Your task to perform on an android device: turn off translation in the chrome app Image 0: 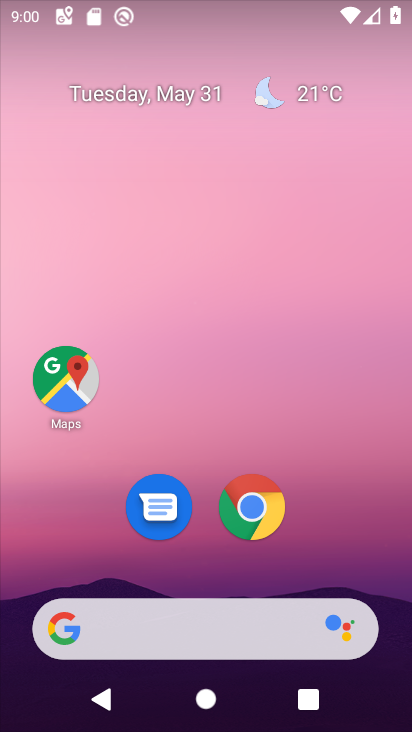
Step 0: drag from (359, 629) to (294, 108)
Your task to perform on an android device: turn off translation in the chrome app Image 1: 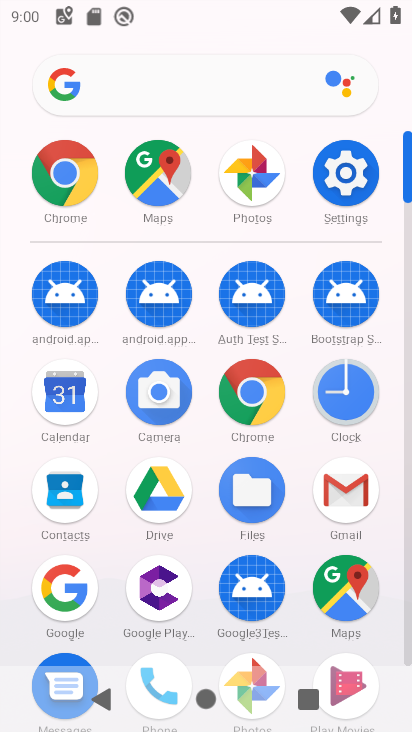
Step 1: click (258, 394)
Your task to perform on an android device: turn off translation in the chrome app Image 2: 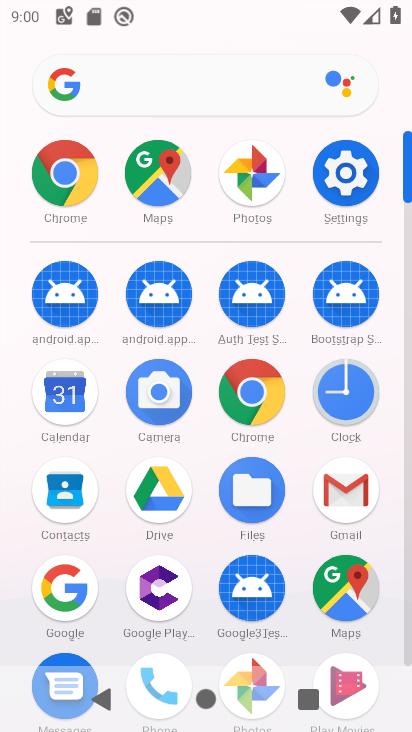
Step 2: click (258, 394)
Your task to perform on an android device: turn off translation in the chrome app Image 3: 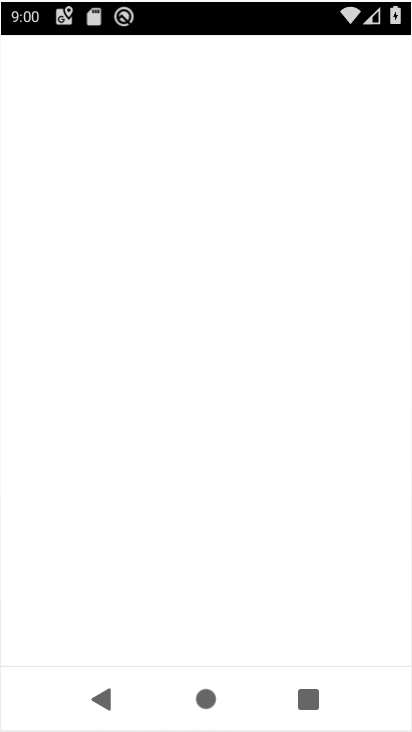
Step 3: click (254, 397)
Your task to perform on an android device: turn off translation in the chrome app Image 4: 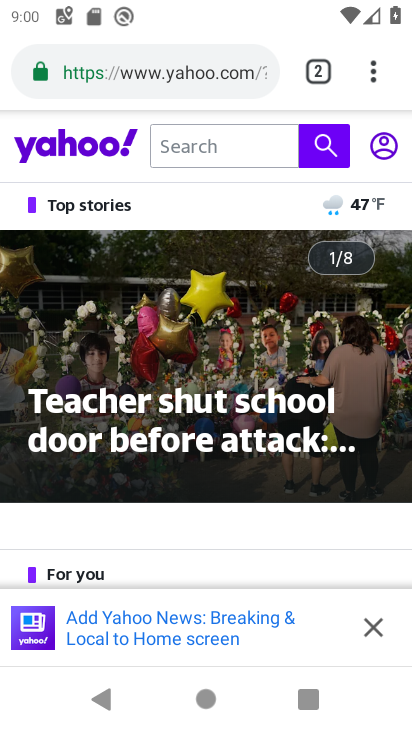
Step 4: drag from (372, 73) to (113, 536)
Your task to perform on an android device: turn off translation in the chrome app Image 5: 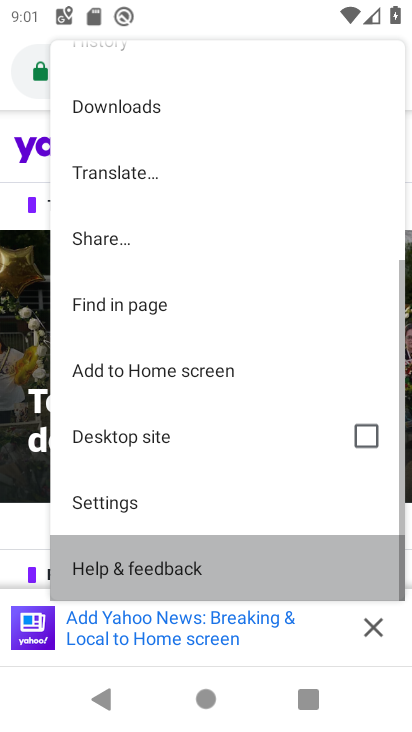
Step 5: click (112, 537)
Your task to perform on an android device: turn off translation in the chrome app Image 6: 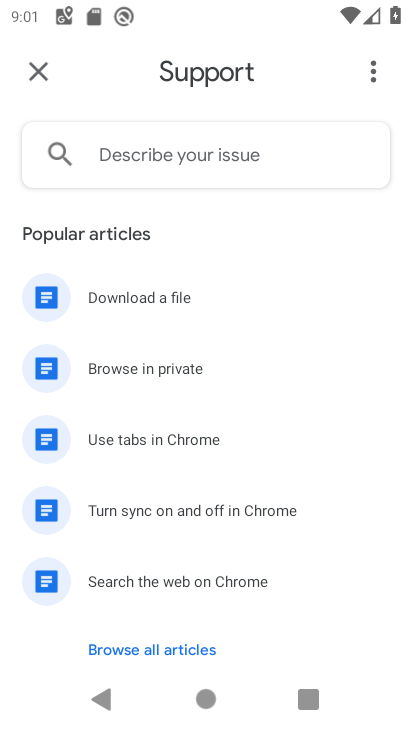
Step 6: click (44, 73)
Your task to perform on an android device: turn off translation in the chrome app Image 7: 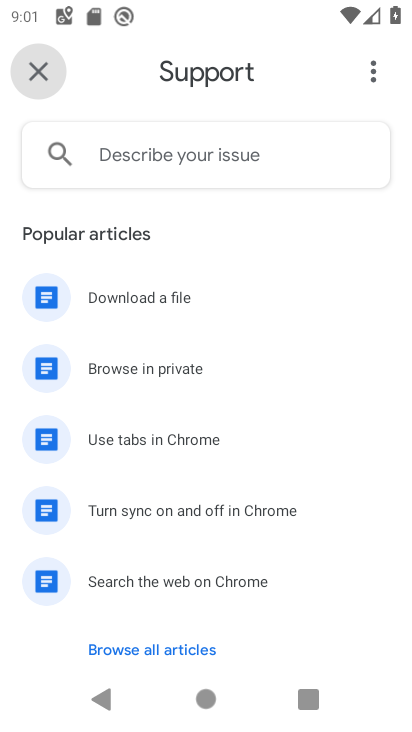
Step 7: click (52, 77)
Your task to perform on an android device: turn off translation in the chrome app Image 8: 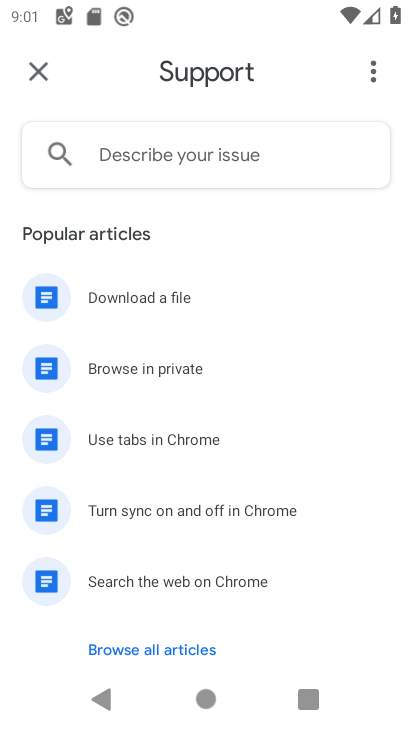
Step 8: click (45, 75)
Your task to perform on an android device: turn off translation in the chrome app Image 9: 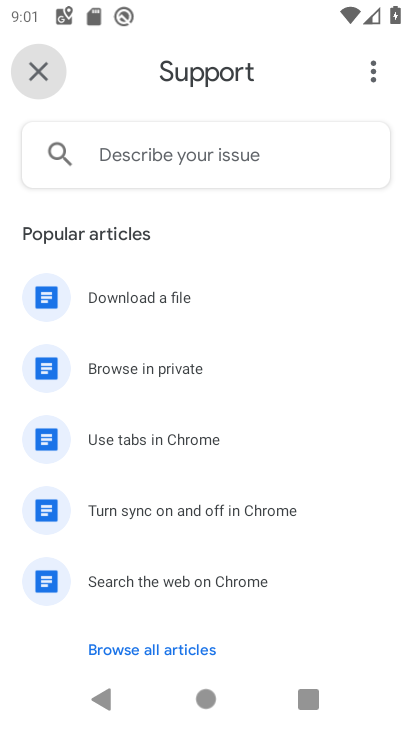
Step 9: click (45, 75)
Your task to perform on an android device: turn off translation in the chrome app Image 10: 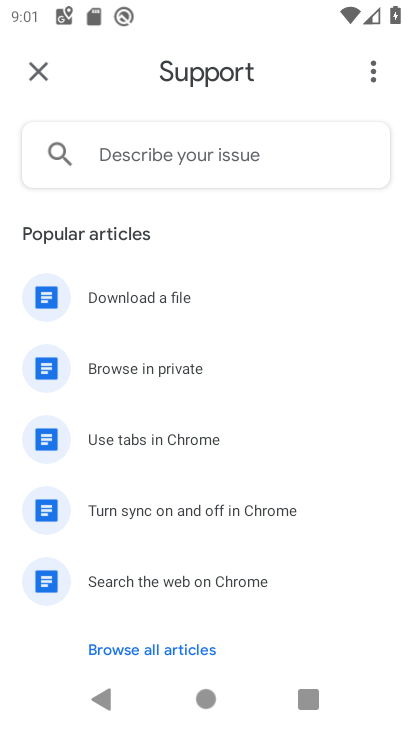
Step 10: click (45, 75)
Your task to perform on an android device: turn off translation in the chrome app Image 11: 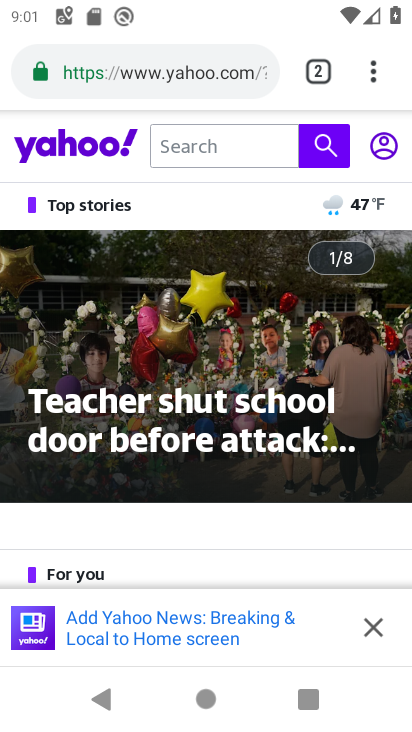
Step 11: drag from (375, 76) to (112, 498)
Your task to perform on an android device: turn off translation in the chrome app Image 12: 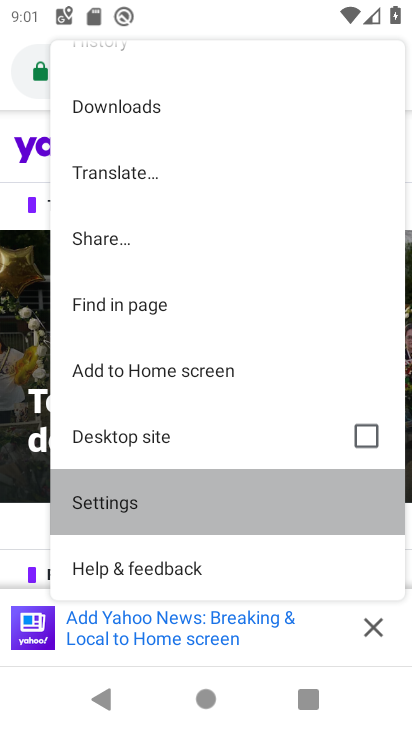
Step 12: click (115, 499)
Your task to perform on an android device: turn off translation in the chrome app Image 13: 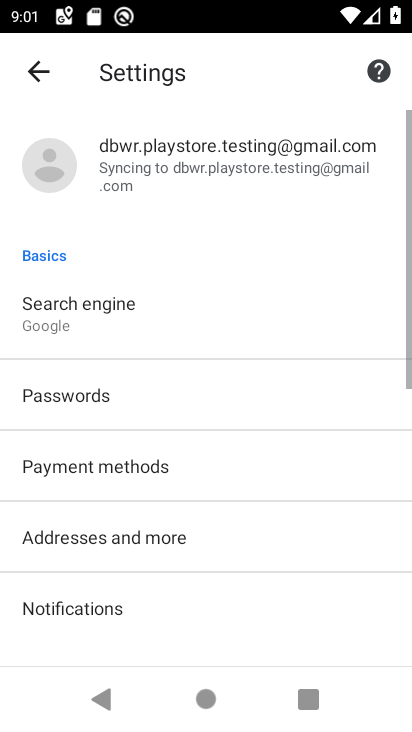
Step 13: drag from (136, 530) to (77, 70)
Your task to perform on an android device: turn off translation in the chrome app Image 14: 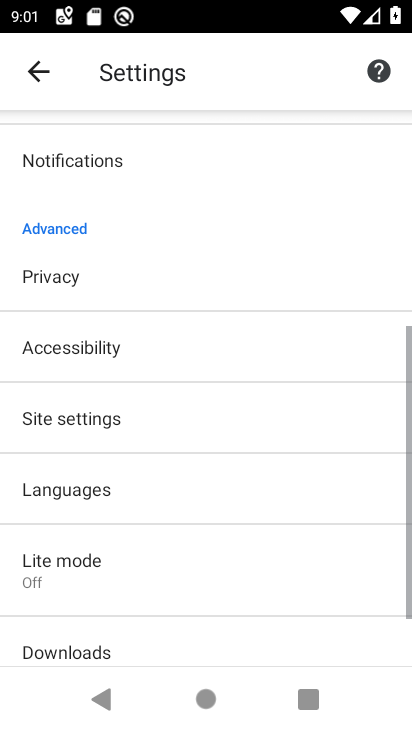
Step 14: drag from (179, 417) to (181, 31)
Your task to perform on an android device: turn off translation in the chrome app Image 15: 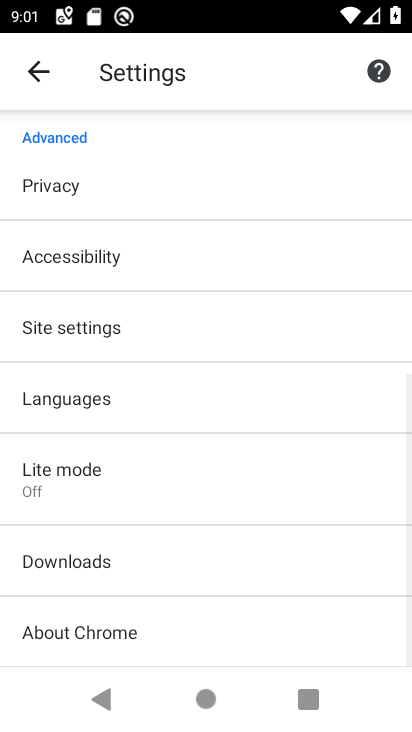
Step 15: click (87, 385)
Your task to perform on an android device: turn off translation in the chrome app Image 16: 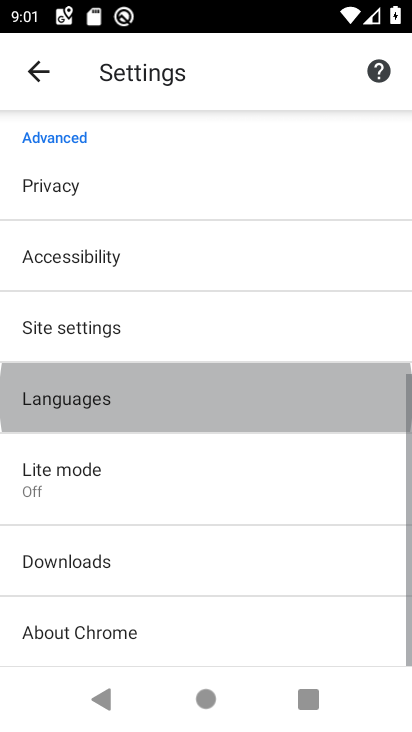
Step 16: click (71, 391)
Your task to perform on an android device: turn off translation in the chrome app Image 17: 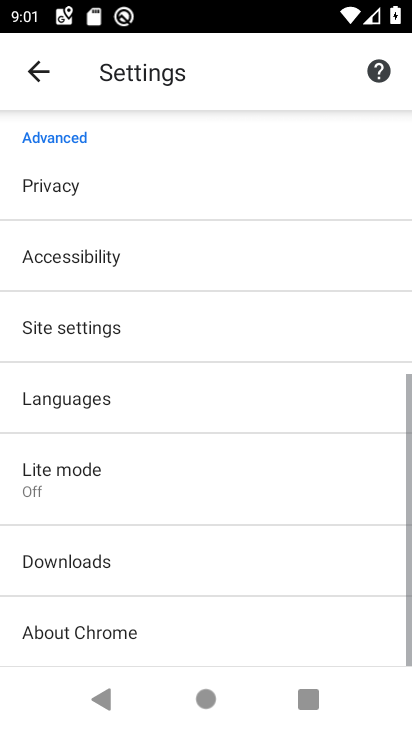
Step 17: click (71, 391)
Your task to perform on an android device: turn off translation in the chrome app Image 18: 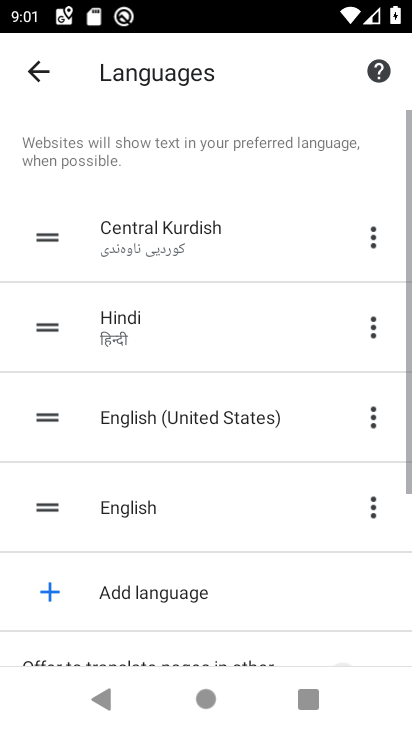
Step 18: task complete